Your task to perform on an android device: Clear the cart on target. Add macbook pro 13 inch to the cart on target, then select checkout. Image 0: 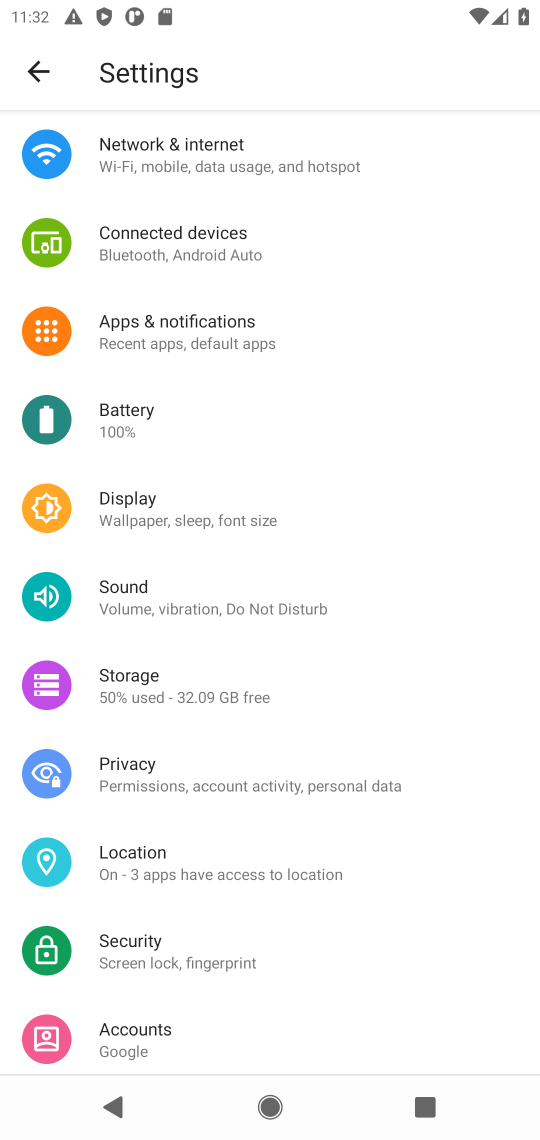
Step 0: press home button
Your task to perform on an android device: Clear the cart on target. Add macbook pro 13 inch to the cart on target, then select checkout. Image 1: 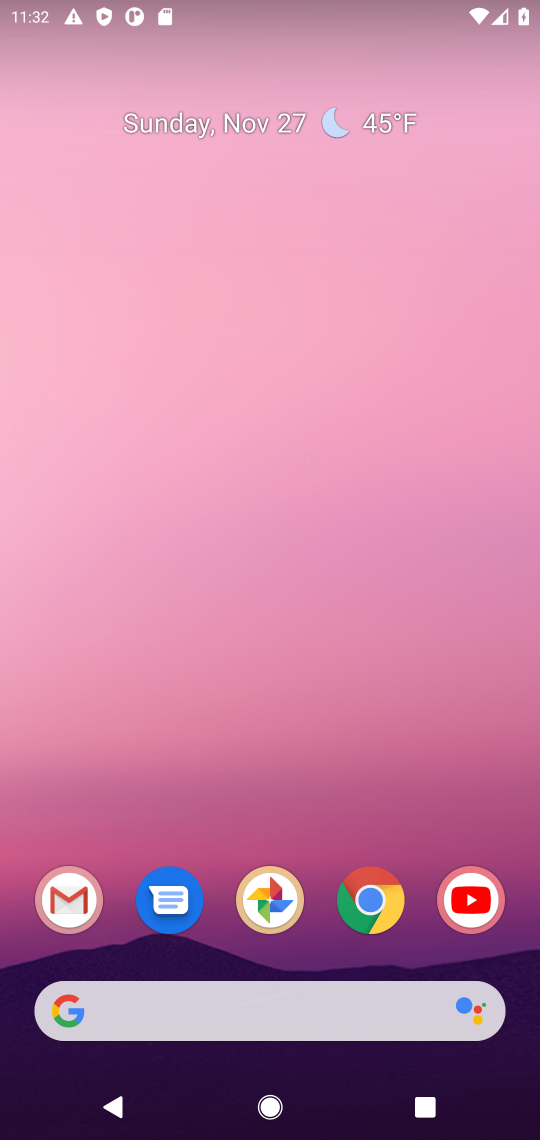
Step 1: click (362, 911)
Your task to perform on an android device: Clear the cart on target. Add macbook pro 13 inch to the cart on target, then select checkout. Image 2: 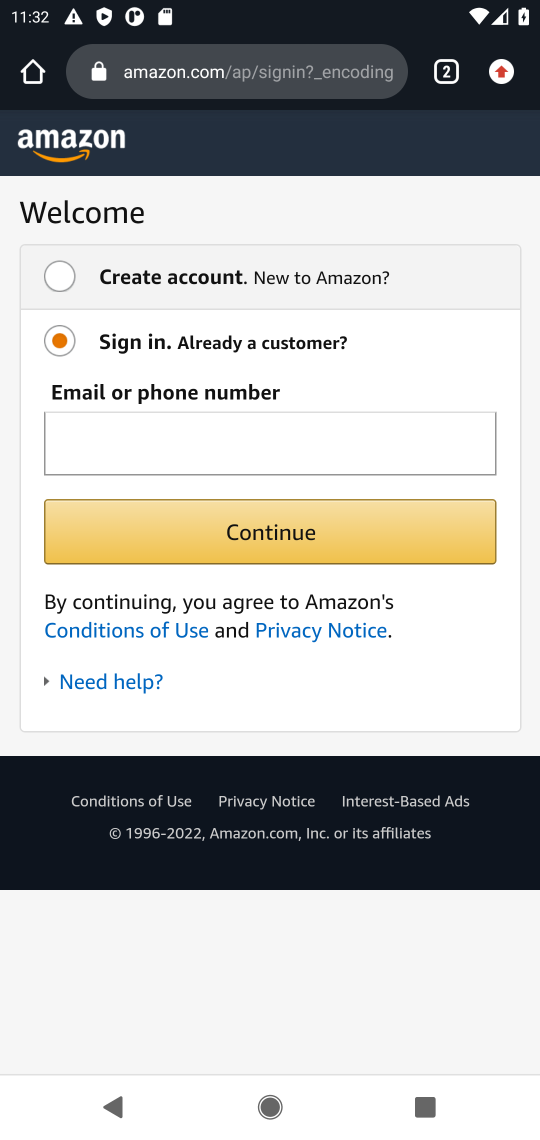
Step 2: click (252, 73)
Your task to perform on an android device: Clear the cart on target. Add macbook pro 13 inch to the cart on target, then select checkout. Image 3: 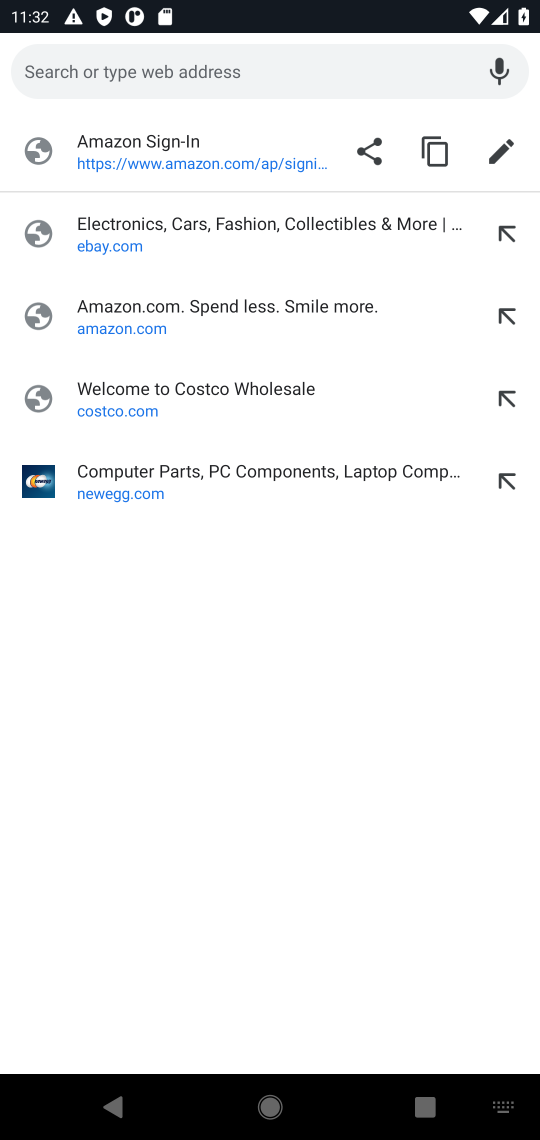
Step 3: type "target.com"
Your task to perform on an android device: Clear the cart on target. Add macbook pro 13 inch to the cart on target, then select checkout. Image 4: 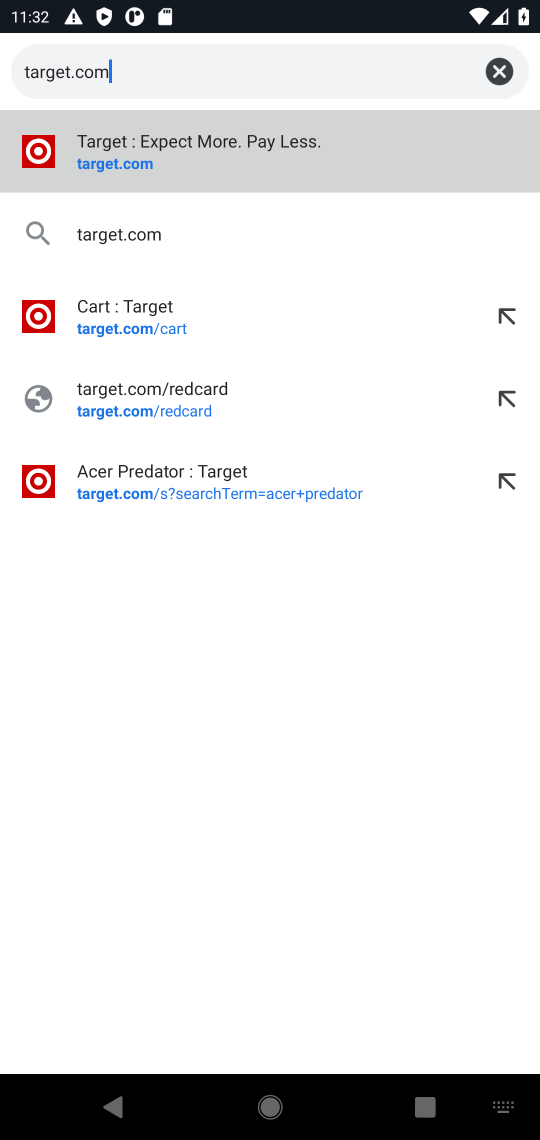
Step 4: click (95, 163)
Your task to perform on an android device: Clear the cart on target. Add macbook pro 13 inch to the cart on target, then select checkout. Image 5: 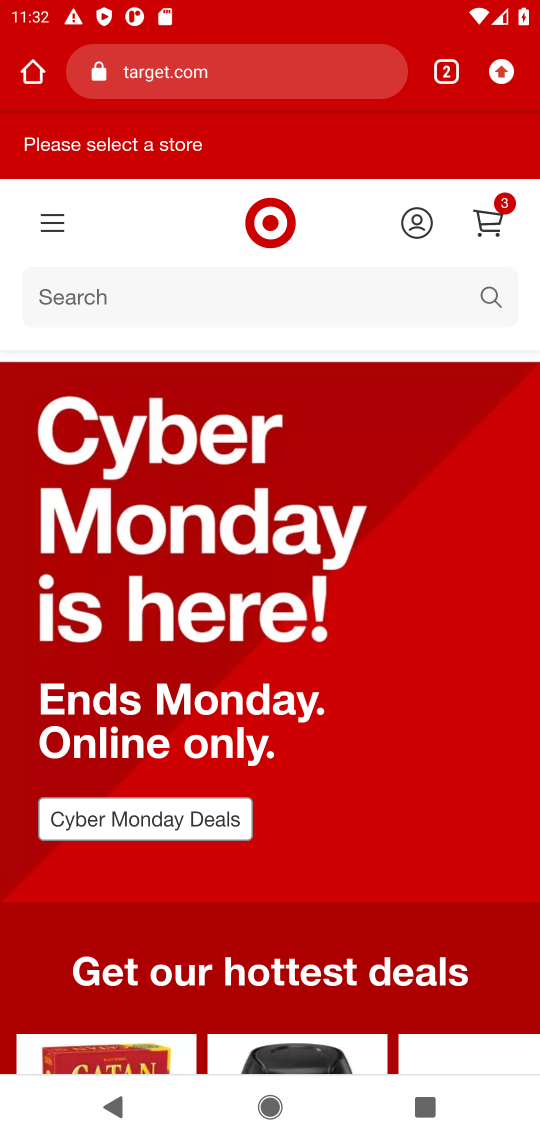
Step 5: click (484, 219)
Your task to perform on an android device: Clear the cart on target. Add macbook pro 13 inch to the cart on target, then select checkout. Image 6: 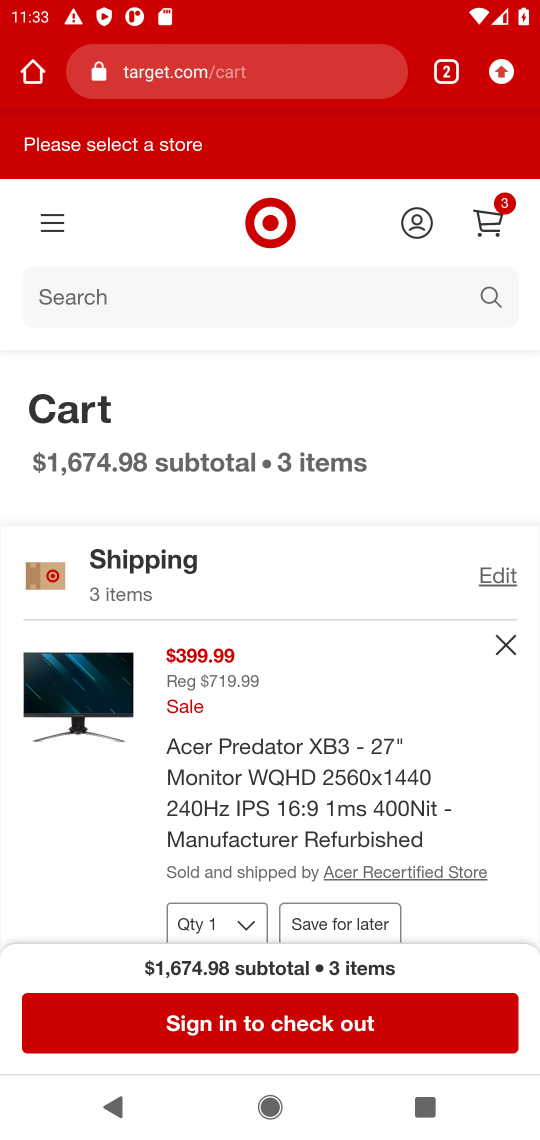
Step 6: click (500, 641)
Your task to perform on an android device: Clear the cart on target. Add macbook pro 13 inch to the cart on target, then select checkout. Image 7: 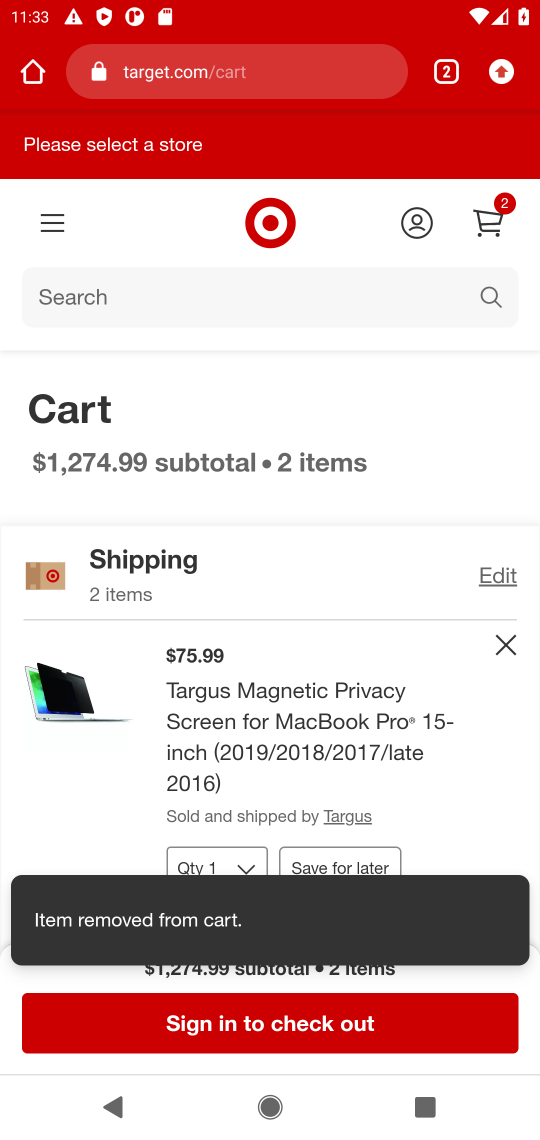
Step 7: click (500, 641)
Your task to perform on an android device: Clear the cart on target. Add macbook pro 13 inch to the cart on target, then select checkout. Image 8: 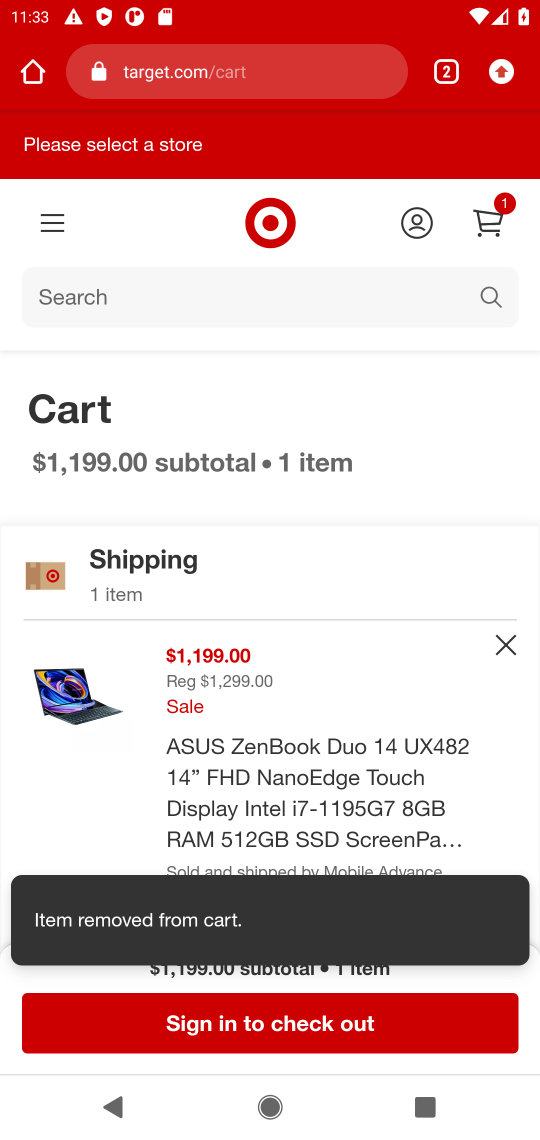
Step 8: click (500, 641)
Your task to perform on an android device: Clear the cart on target. Add macbook pro 13 inch to the cart on target, then select checkout. Image 9: 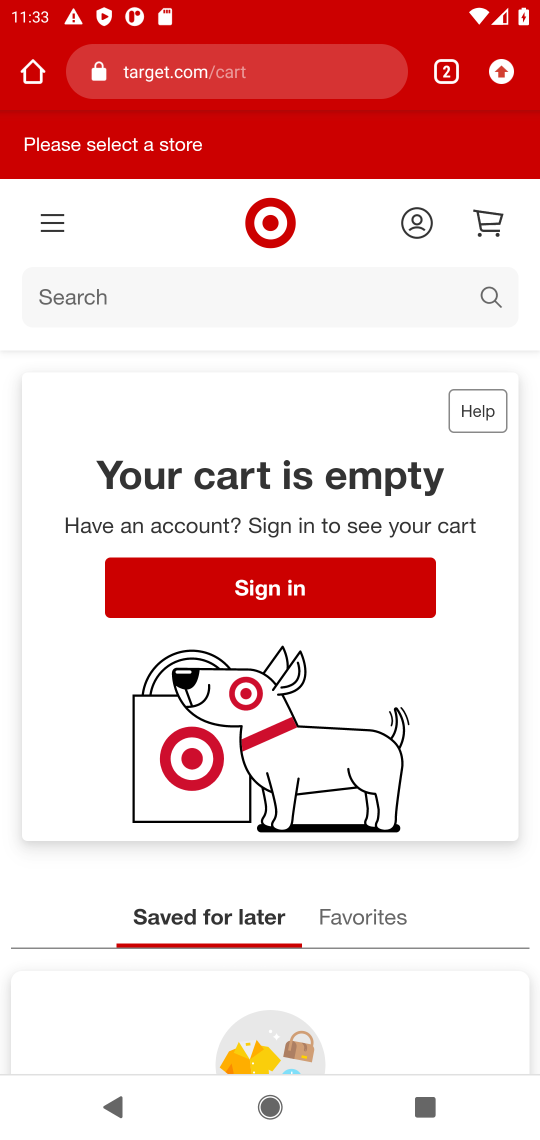
Step 9: click (481, 293)
Your task to perform on an android device: Clear the cart on target. Add macbook pro 13 inch to the cart on target, then select checkout. Image 10: 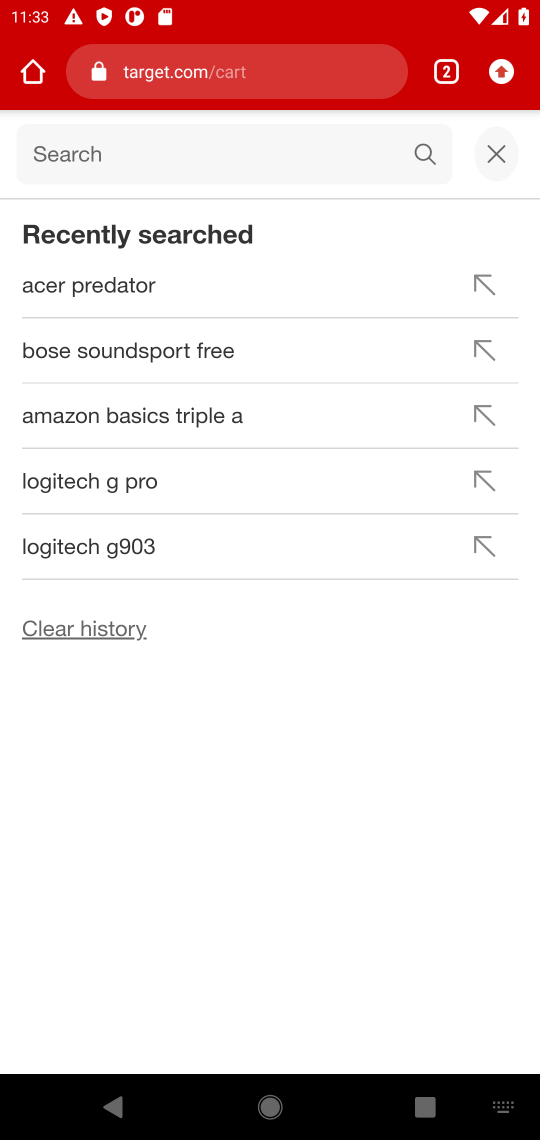
Step 10: type "macbook pro 13 inch"
Your task to perform on an android device: Clear the cart on target. Add macbook pro 13 inch to the cart on target, then select checkout. Image 11: 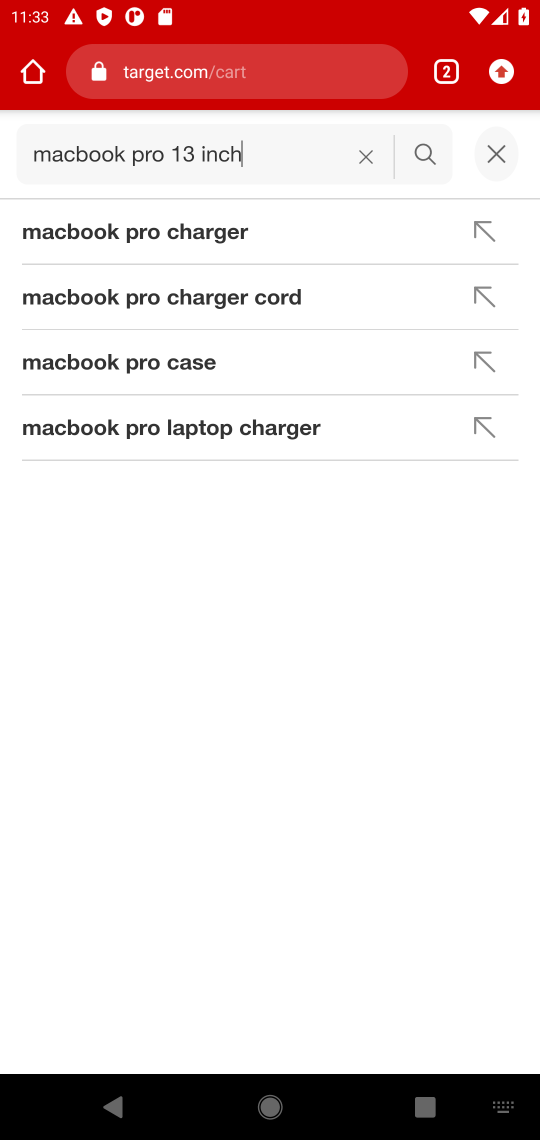
Step 11: click (420, 152)
Your task to perform on an android device: Clear the cart on target. Add macbook pro 13 inch to the cart on target, then select checkout. Image 12: 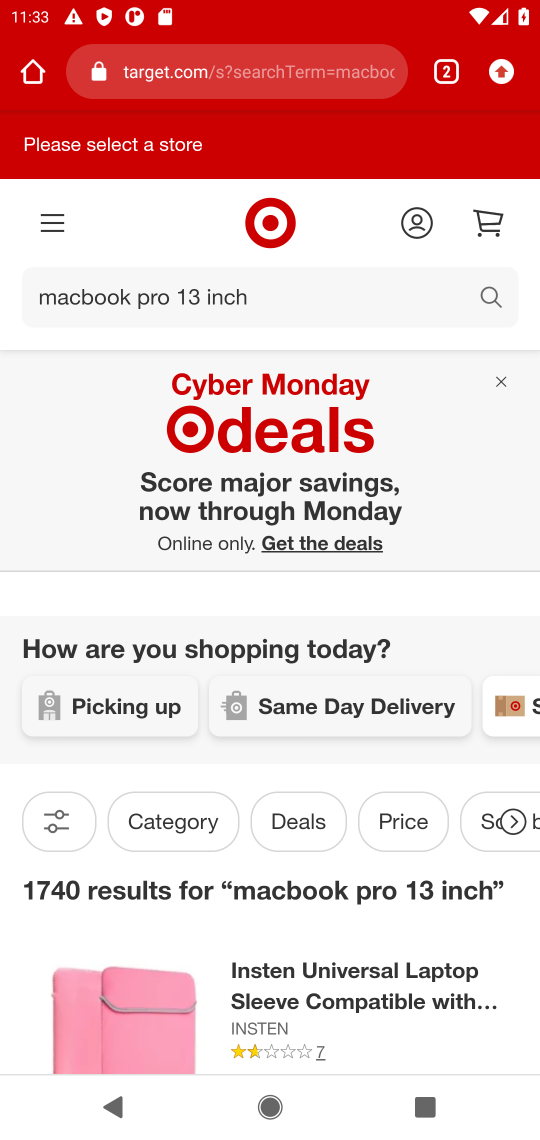
Step 12: drag from (425, 620) to (443, 380)
Your task to perform on an android device: Clear the cart on target. Add macbook pro 13 inch to the cart on target, then select checkout. Image 13: 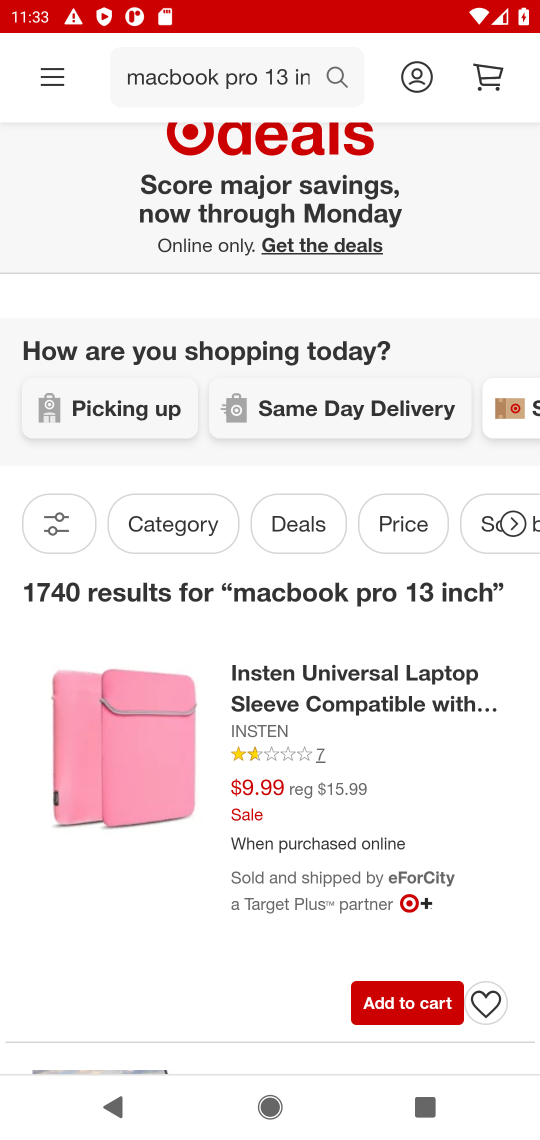
Step 13: drag from (223, 728) to (239, 474)
Your task to perform on an android device: Clear the cart on target. Add macbook pro 13 inch to the cart on target, then select checkout. Image 14: 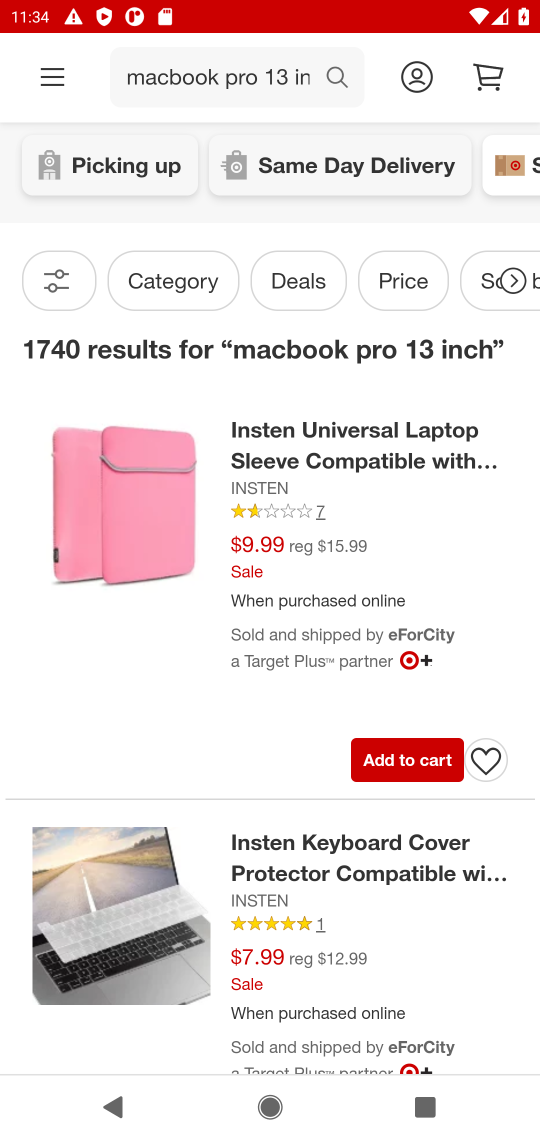
Step 14: click (133, 559)
Your task to perform on an android device: Clear the cart on target. Add macbook pro 13 inch to the cart on target, then select checkout. Image 15: 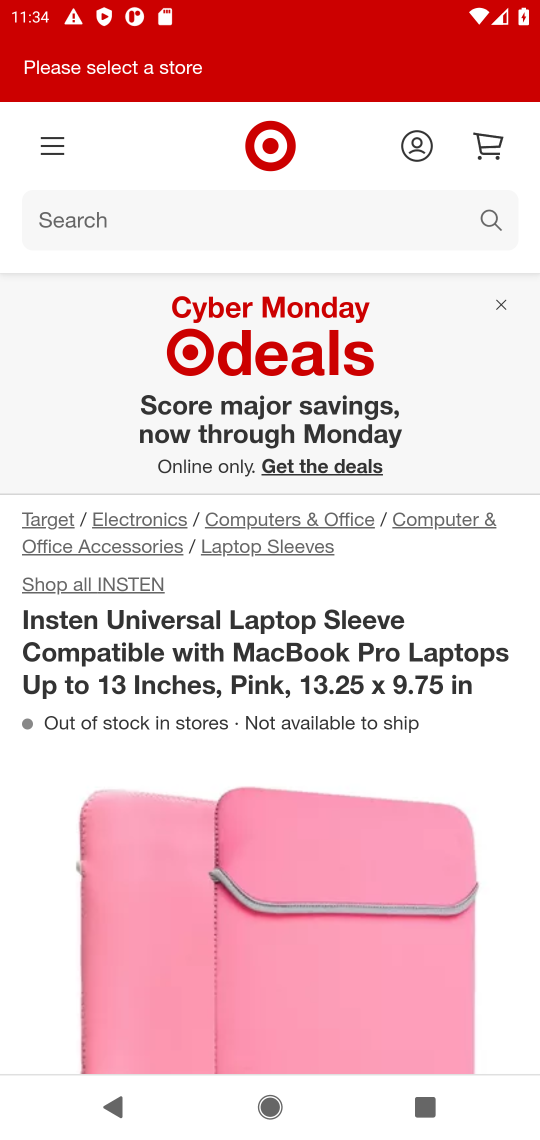
Step 15: drag from (247, 636) to (247, 339)
Your task to perform on an android device: Clear the cart on target. Add macbook pro 13 inch to the cart on target, then select checkout. Image 16: 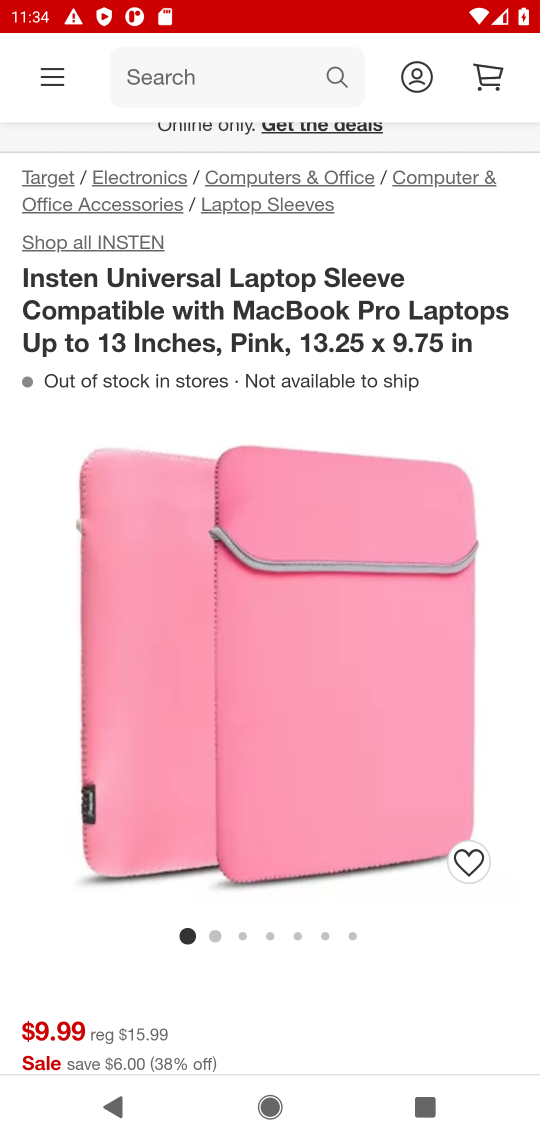
Step 16: drag from (275, 677) to (290, 189)
Your task to perform on an android device: Clear the cart on target. Add macbook pro 13 inch to the cart on target, then select checkout. Image 17: 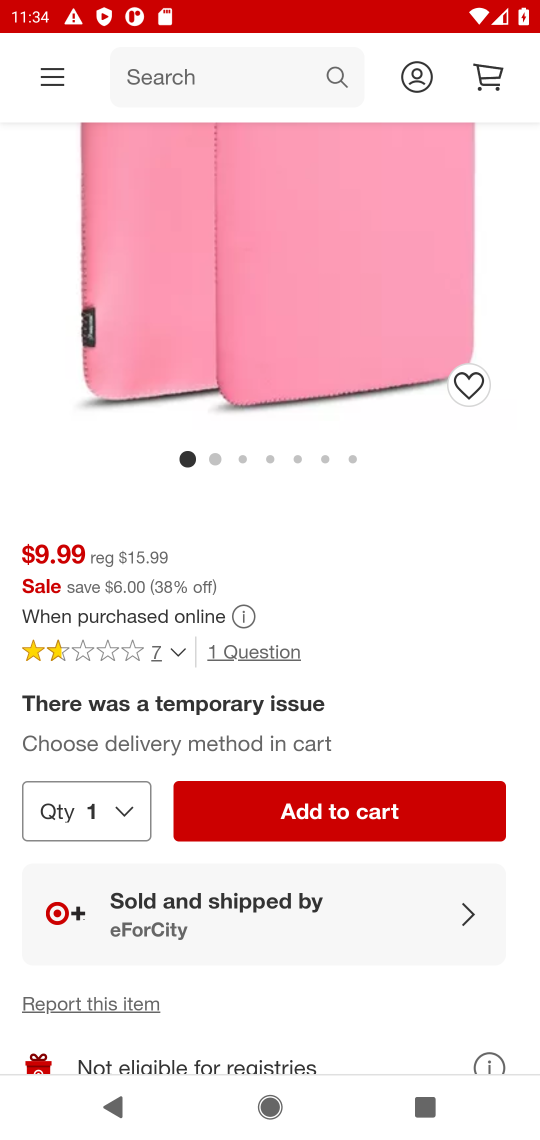
Step 17: click (307, 812)
Your task to perform on an android device: Clear the cart on target. Add macbook pro 13 inch to the cart on target, then select checkout. Image 18: 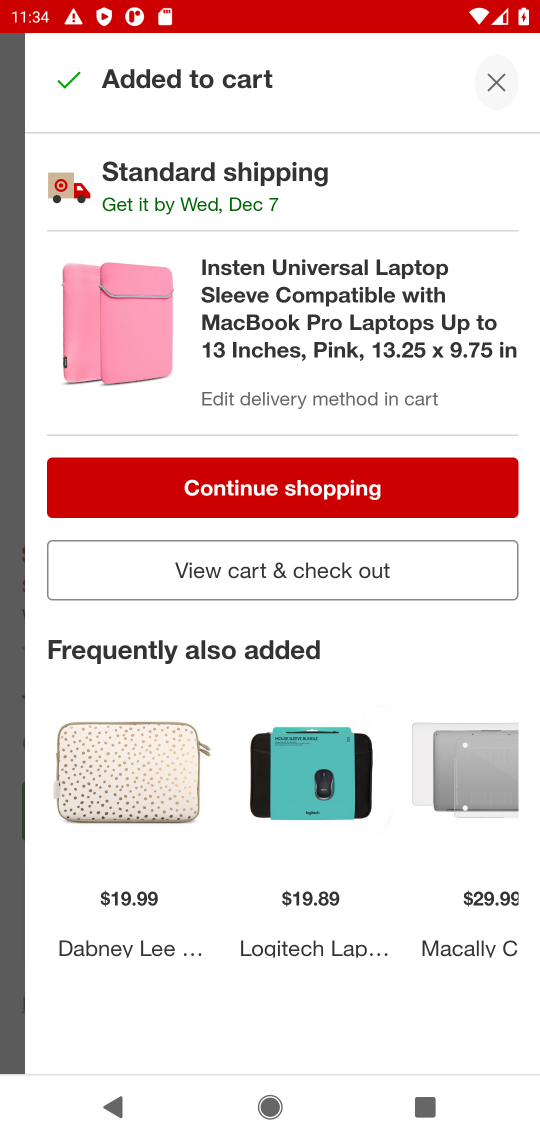
Step 18: click (267, 568)
Your task to perform on an android device: Clear the cart on target. Add macbook pro 13 inch to the cart on target, then select checkout. Image 19: 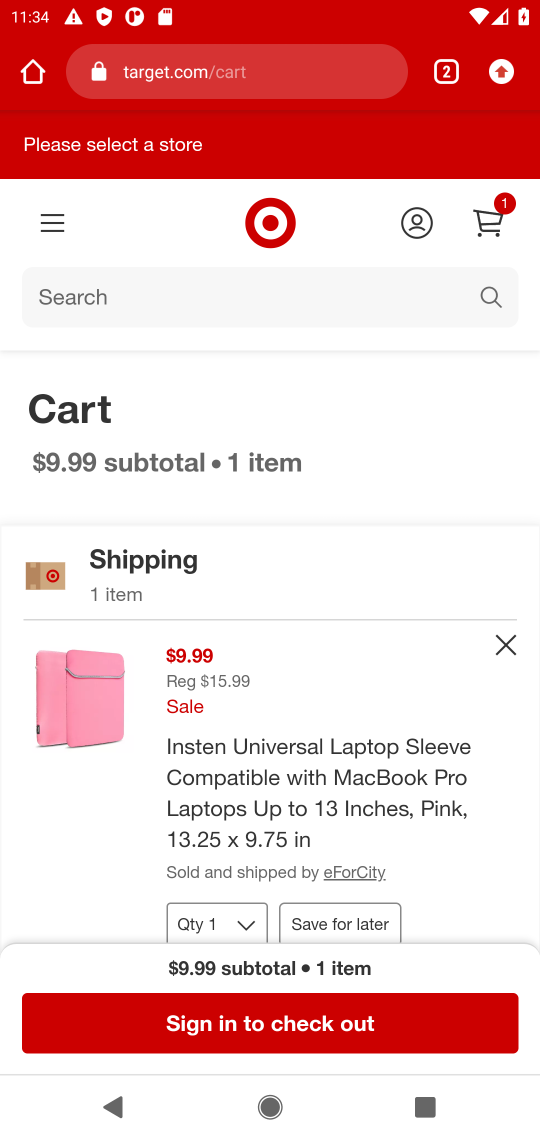
Step 19: click (231, 1023)
Your task to perform on an android device: Clear the cart on target. Add macbook pro 13 inch to the cart on target, then select checkout. Image 20: 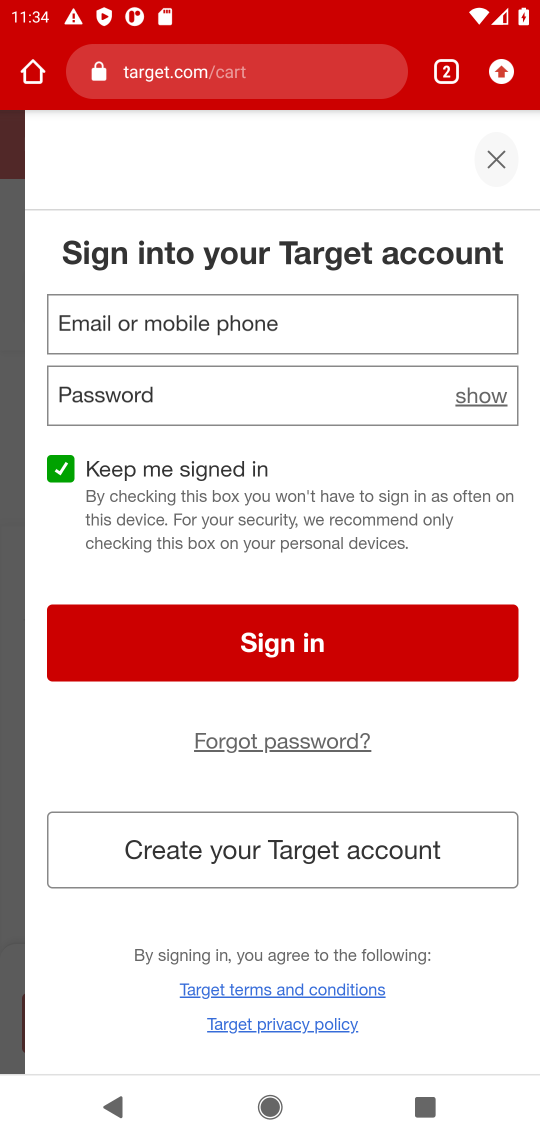
Step 20: task complete